Your task to perform on an android device: Go to accessibility settings Image 0: 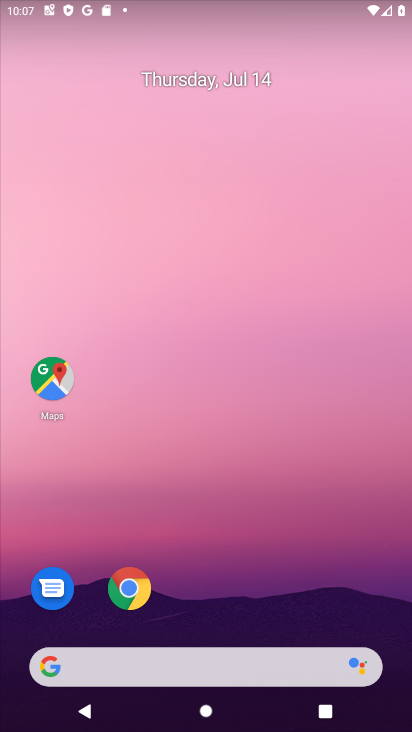
Step 0: drag from (174, 671) to (319, 3)
Your task to perform on an android device: Go to accessibility settings Image 1: 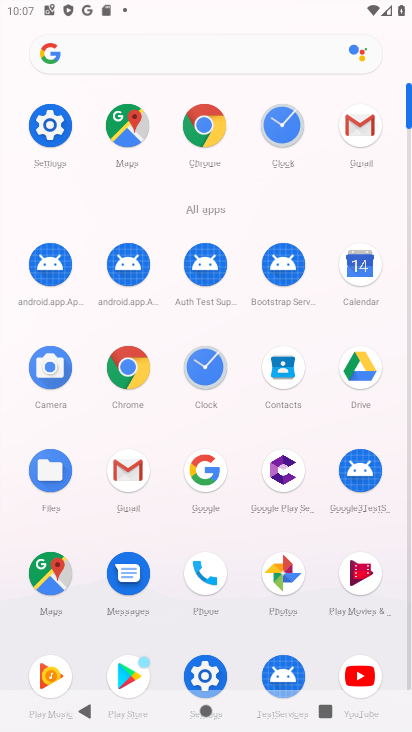
Step 1: click (44, 124)
Your task to perform on an android device: Go to accessibility settings Image 2: 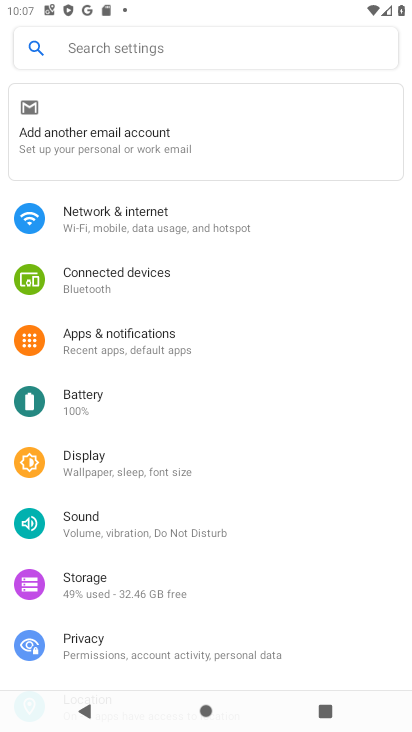
Step 2: drag from (186, 580) to (273, 95)
Your task to perform on an android device: Go to accessibility settings Image 3: 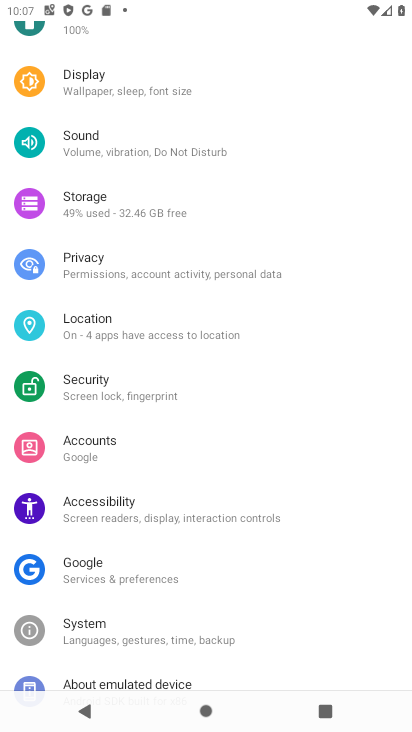
Step 3: click (129, 507)
Your task to perform on an android device: Go to accessibility settings Image 4: 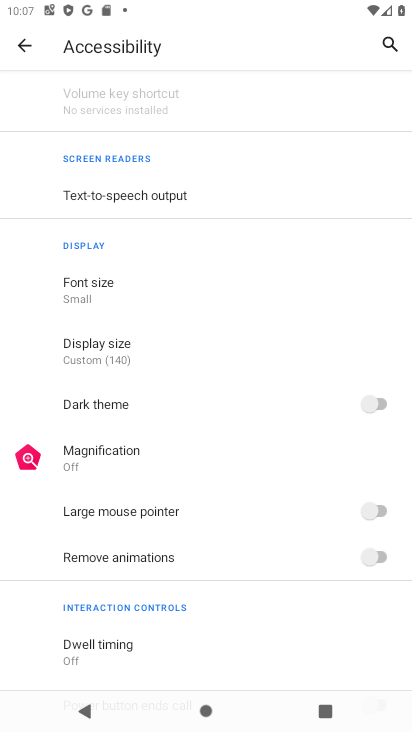
Step 4: task complete